Your task to perform on an android device: Open Google Chrome Image 0: 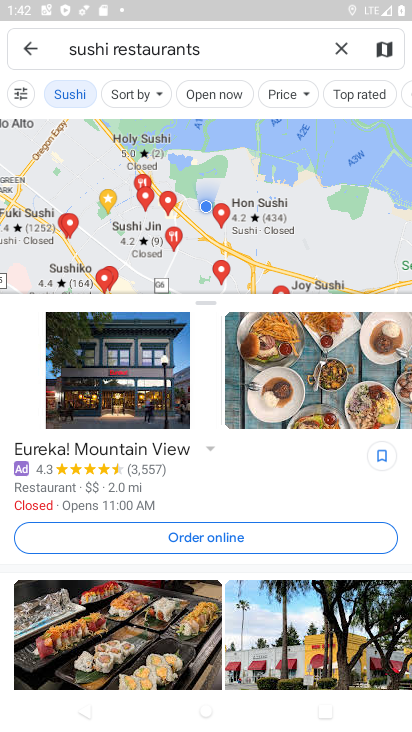
Step 0: press home button
Your task to perform on an android device: Open Google Chrome Image 1: 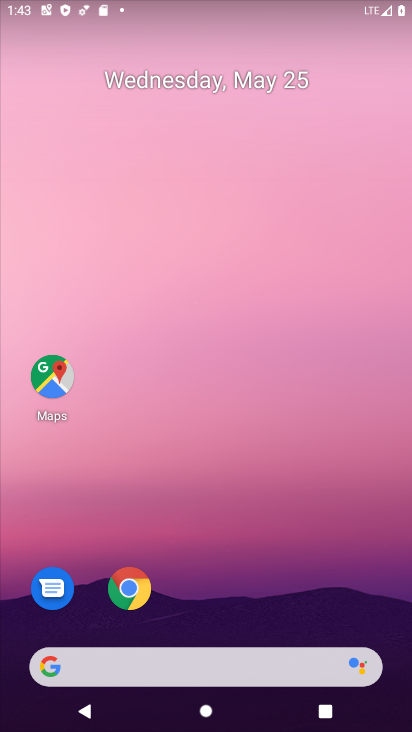
Step 1: click (140, 587)
Your task to perform on an android device: Open Google Chrome Image 2: 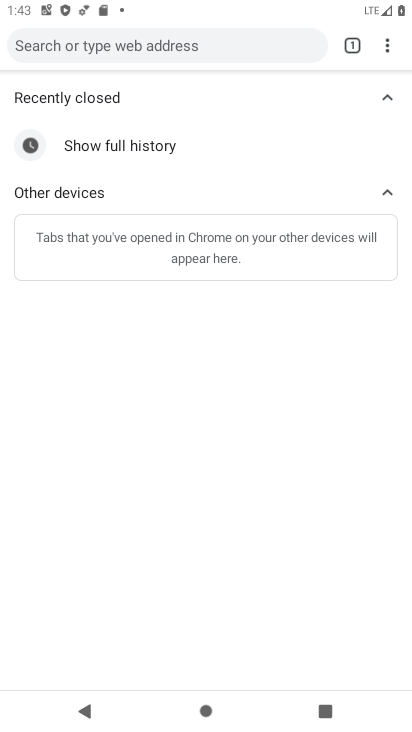
Step 2: task complete